Your task to perform on an android device: Add "lg ultragear" to the cart on walmart, then select checkout. Image 0: 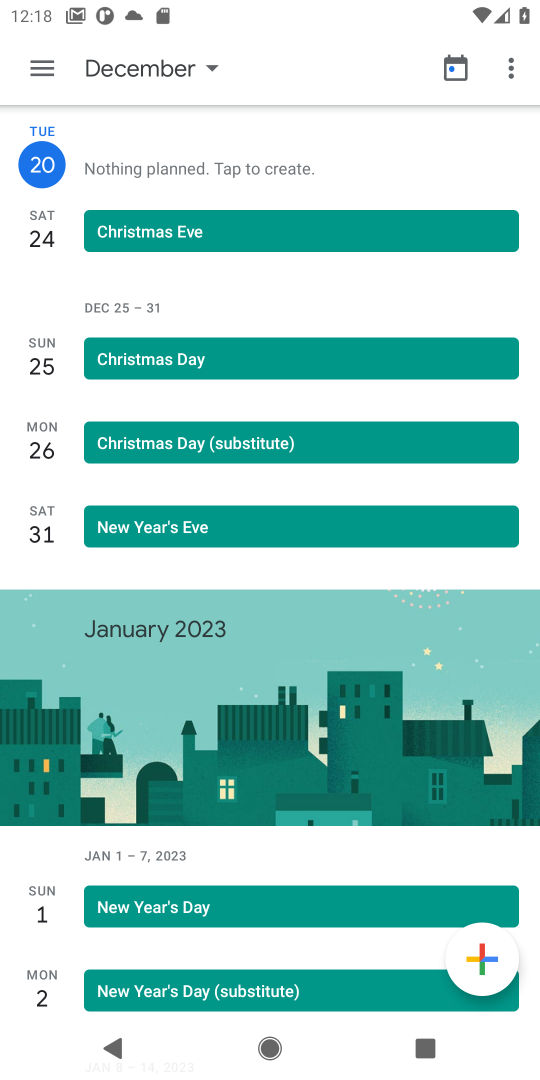
Step 0: press home button
Your task to perform on an android device: Add "lg ultragear" to the cart on walmart, then select checkout. Image 1: 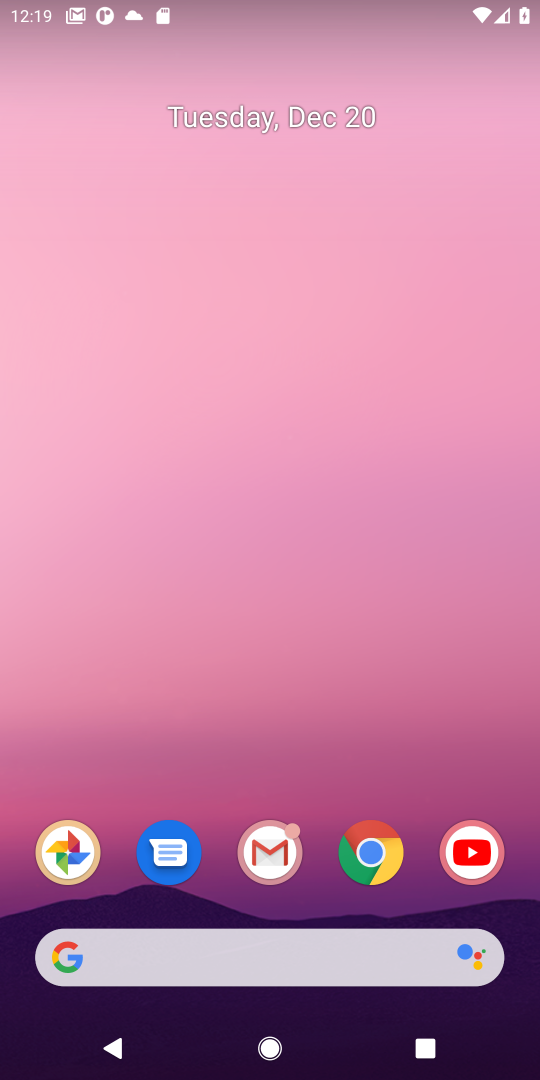
Step 1: click (379, 861)
Your task to perform on an android device: Add "lg ultragear" to the cart on walmart, then select checkout. Image 2: 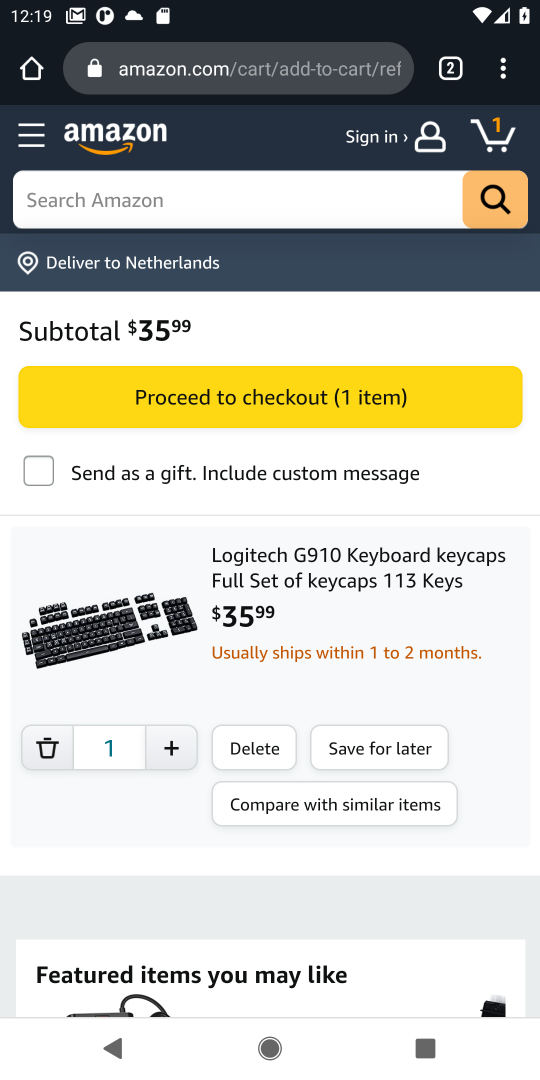
Step 2: click (197, 75)
Your task to perform on an android device: Add "lg ultragear" to the cart on walmart, then select checkout. Image 3: 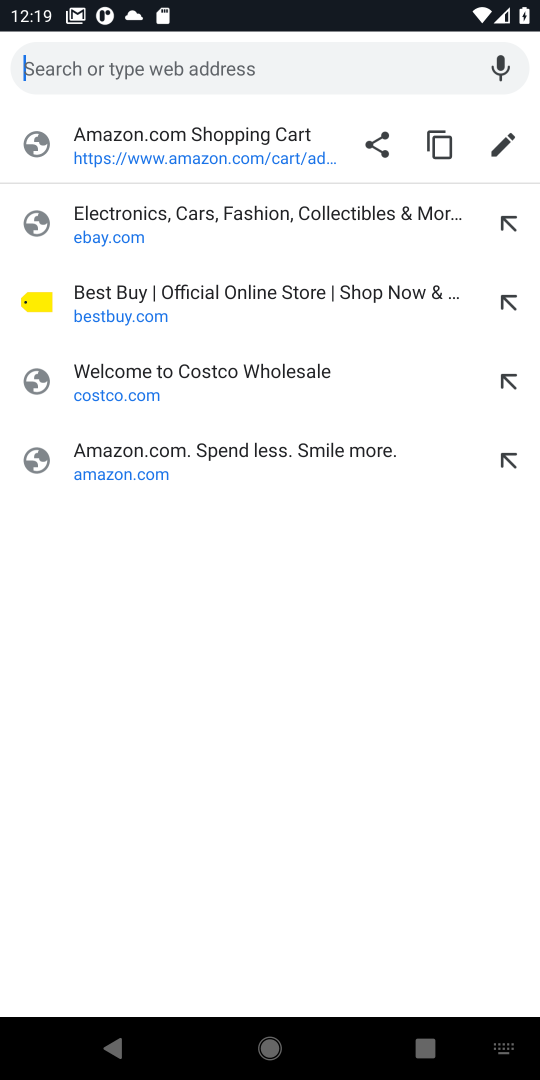
Step 3: type "walmart.com"
Your task to perform on an android device: Add "lg ultragear" to the cart on walmart, then select checkout. Image 4: 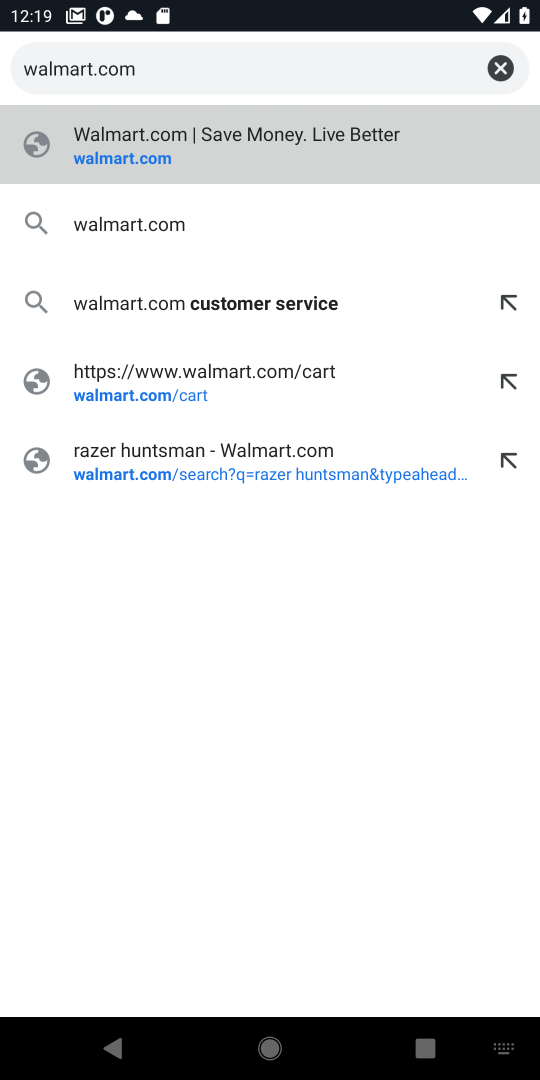
Step 4: click (127, 162)
Your task to perform on an android device: Add "lg ultragear" to the cart on walmart, then select checkout. Image 5: 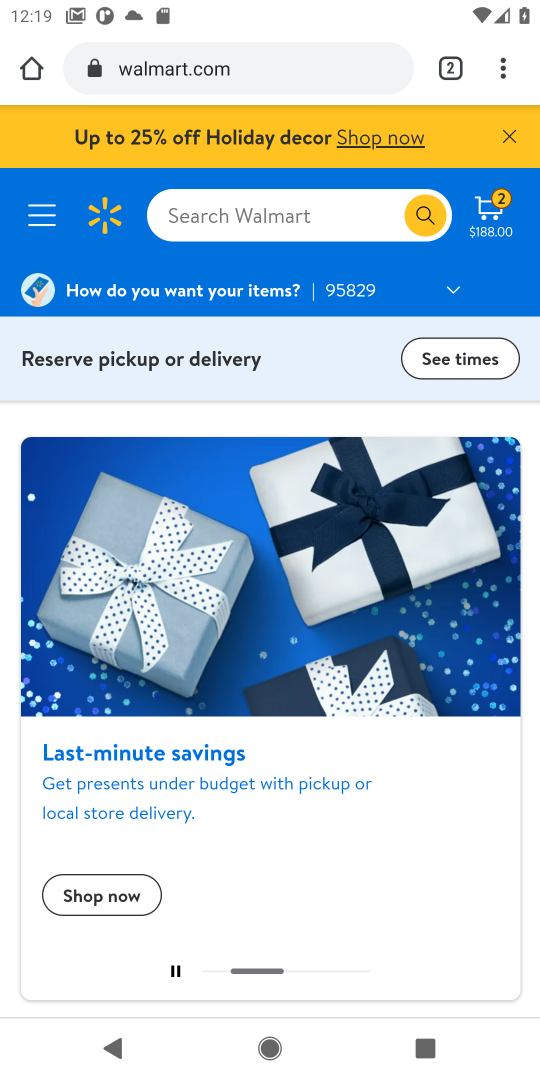
Step 5: click (203, 213)
Your task to perform on an android device: Add "lg ultragear" to the cart on walmart, then select checkout. Image 6: 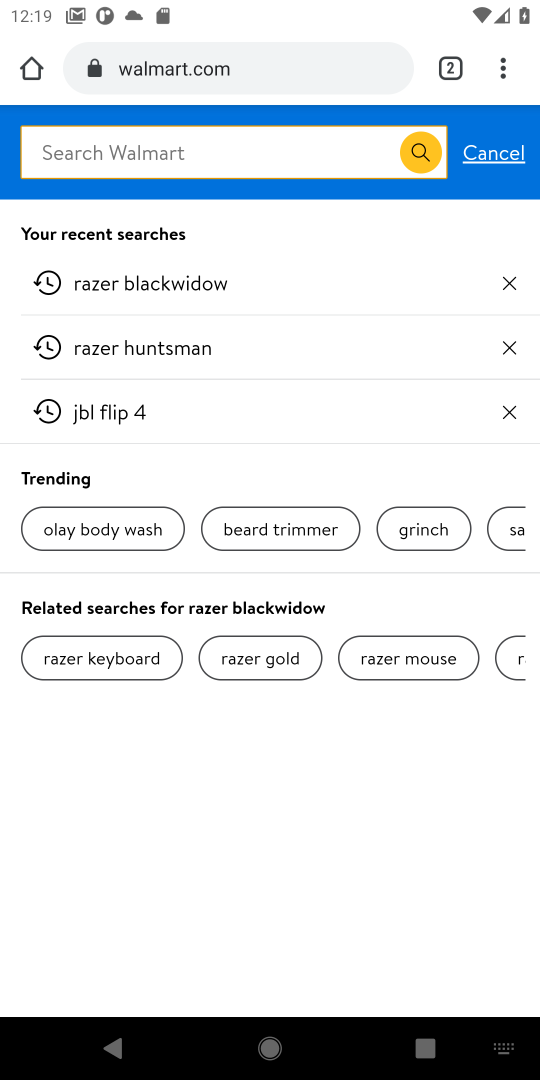
Step 6: type "lg ultragear"
Your task to perform on an android device: Add "lg ultragear" to the cart on walmart, then select checkout. Image 7: 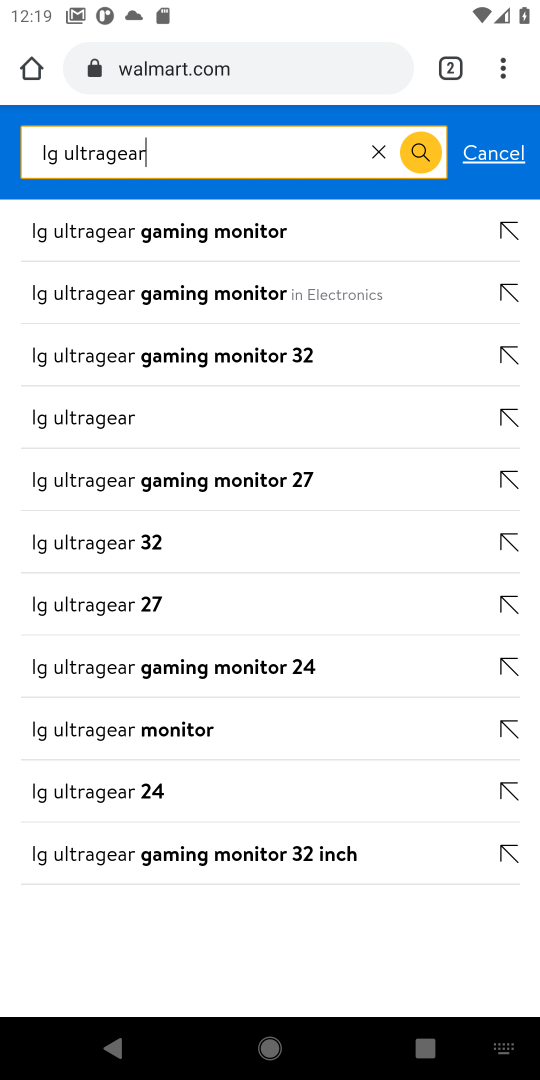
Step 7: click (84, 433)
Your task to perform on an android device: Add "lg ultragear" to the cart on walmart, then select checkout. Image 8: 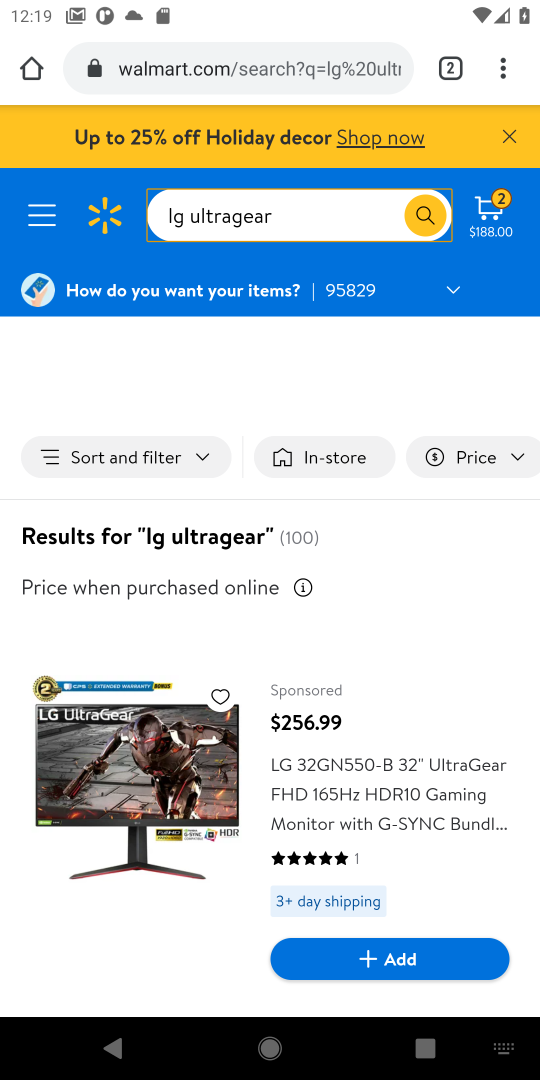
Step 8: click (401, 965)
Your task to perform on an android device: Add "lg ultragear" to the cart on walmart, then select checkout. Image 9: 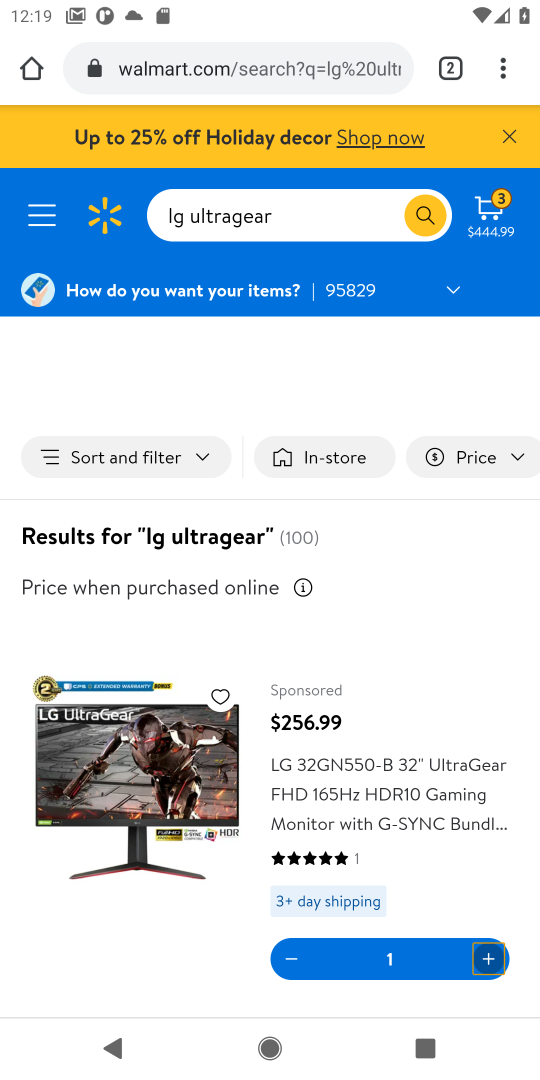
Step 9: click (488, 221)
Your task to perform on an android device: Add "lg ultragear" to the cart on walmart, then select checkout. Image 10: 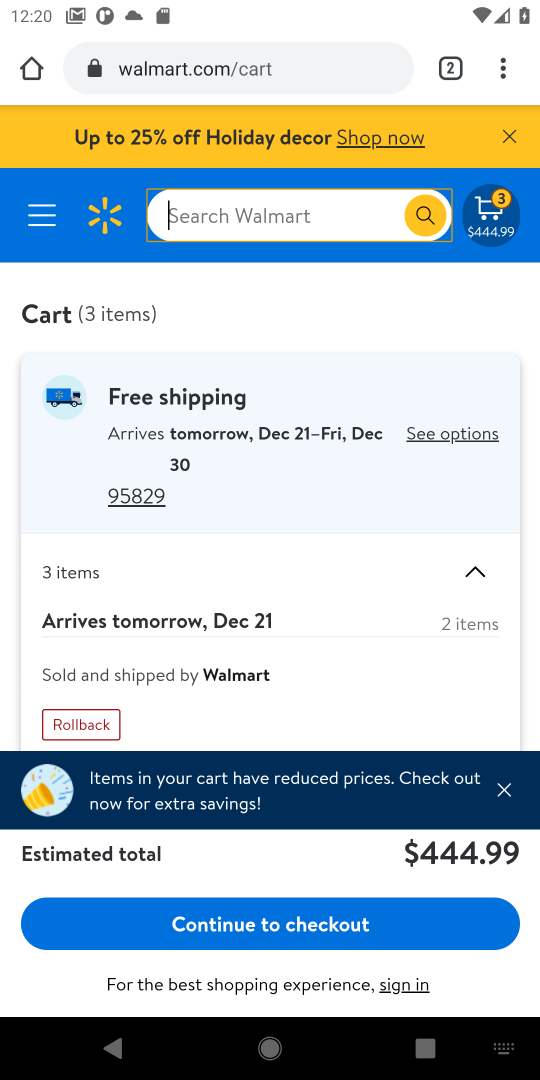
Step 10: click (273, 922)
Your task to perform on an android device: Add "lg ultragear" to the cart on walmart, then select checkout. Image 11: 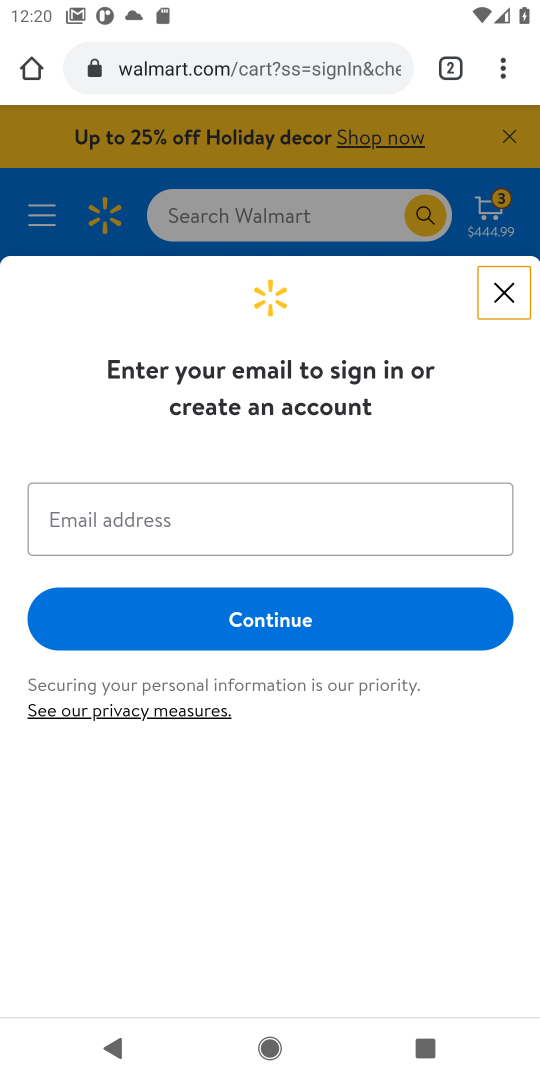
Step 11: task complete